Your task to perform on an android device: What is the news today? Image 0: 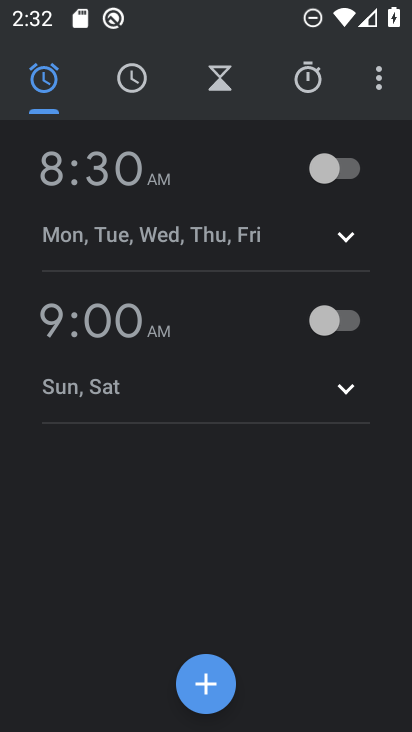
Step 0: press home button
Your task to perform on an android device: What is the news today? Image 1: 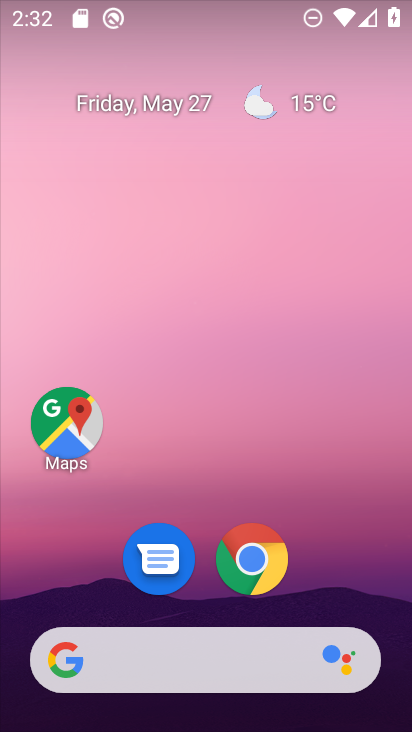
Step 1: drag from (173, 657) to (180, 62)
Your task to perform on an android device: What is the news today? Image 2: 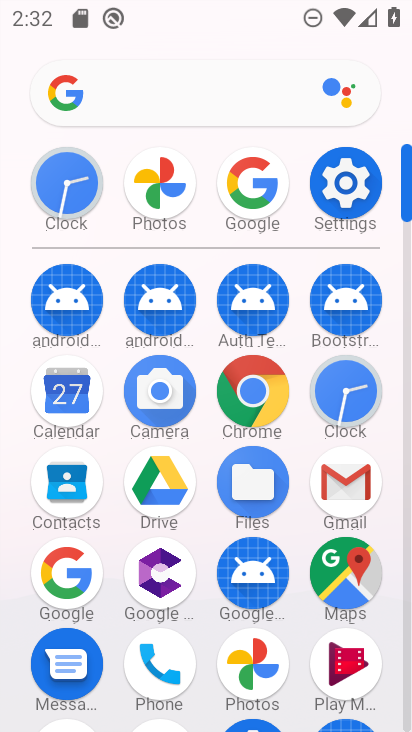
Step 2: click (245, 382)
Your task to perform on an android device: What is the news today? Image 3: 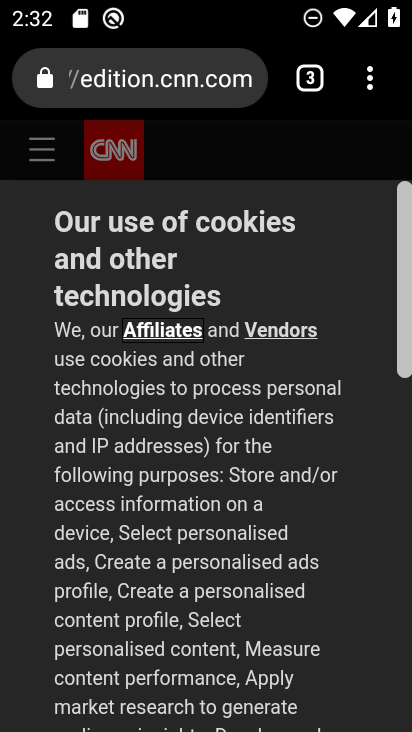
Step 3: click (210, 81)
Your task to perform on an android device: What is the news today? Image 4: 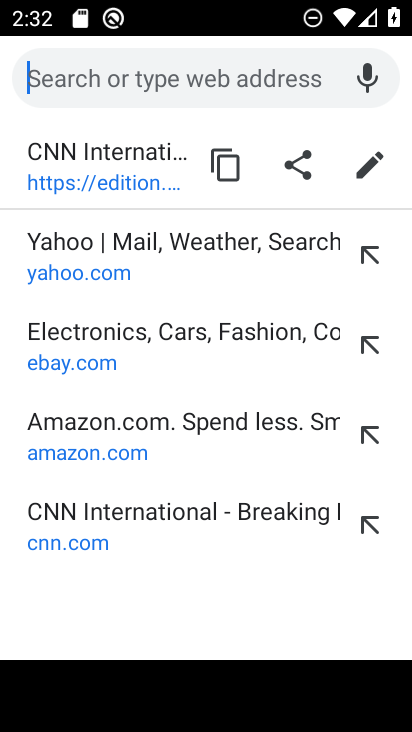
Step 4: type "news today"
Your task to perform on an android device: What is the news today? Image 5: 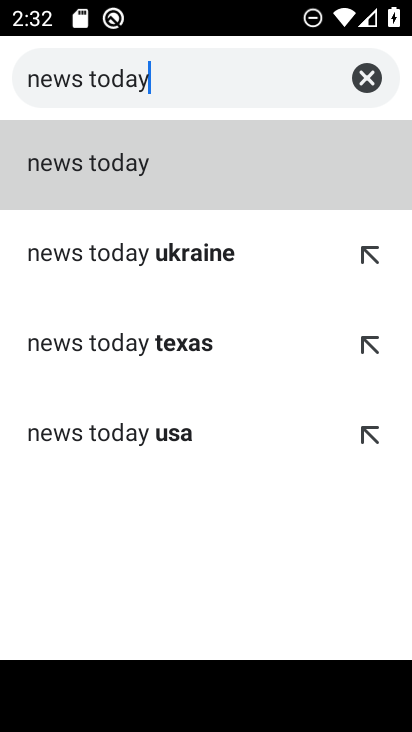
Step 5: click (138, 185)
Your task to perform on an android device: What is the news today? Image 6: 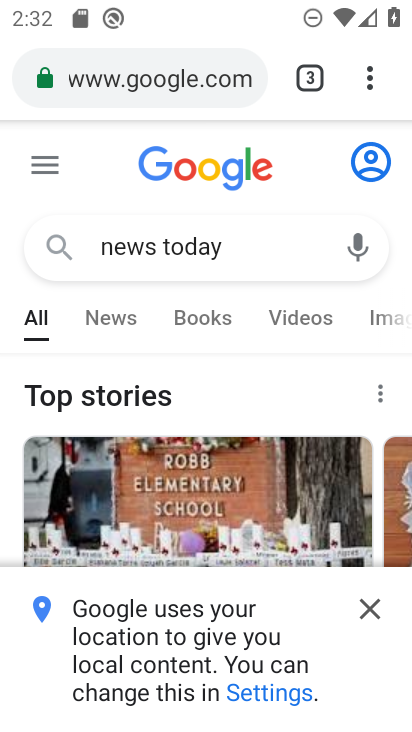
Step 6: task complete